Your task to perform on an android device: Search for the best fantasy books on Goodreads. Image 0: 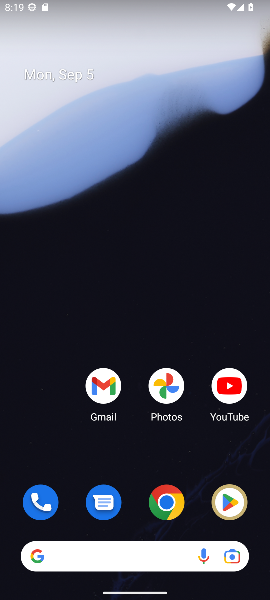
Step 0: drag from (160, 123) to (120, 29)
Your task to perform on an android device: Search for the best fantasy books on Goodreads. Image 1: 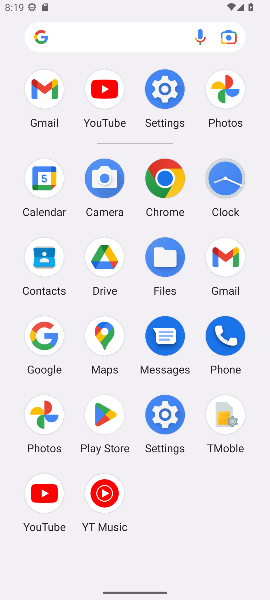
Step 1: click (56, 332)
Your task to perform on an android device: Search for the best fantasy books on Goodreads. Image 2: 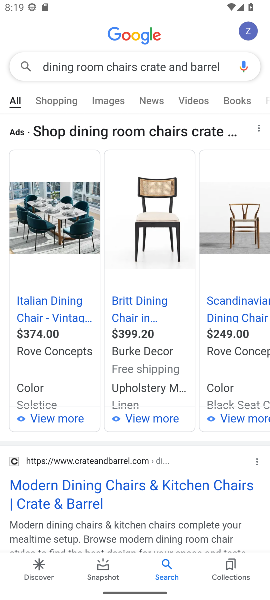
Step 2: press back button
Your task to perform on an android device: Search for the best fantasy books on Goodreads. Image 3: 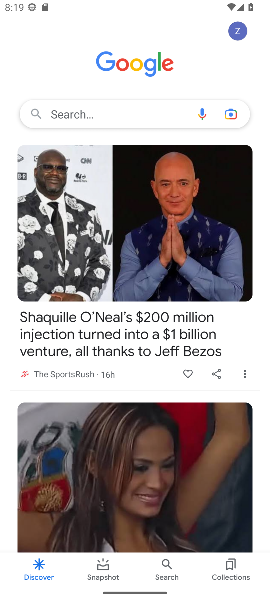
Step 3: click (74, 117)
Your task to perform on an android device: Search for the best fantasy books on Goodreads. Image 4: 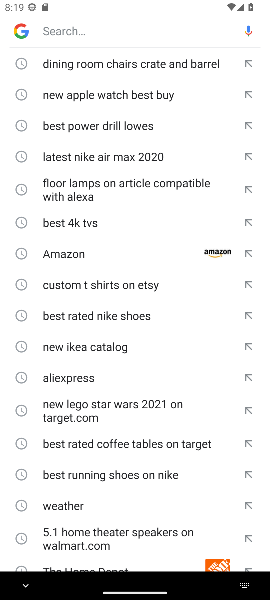
Step 4: type "best fantasy books on Goodreads"
Your task to perform on an android device: Search for the best fantasy books on Goodreads. Image 5: 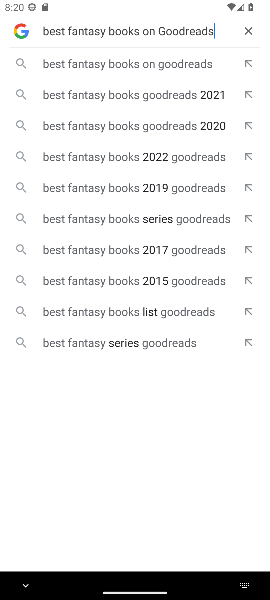
Step 5: click (131, 66)
Your task to perform on an android device: Search for the best fantasy books on Goodreads. Image 6: 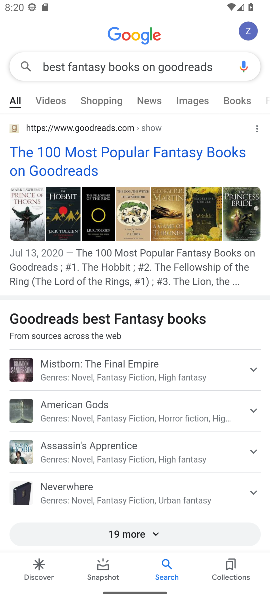
Step 6: task complete